Your task to perform on an android device: open app "Walmart Shopping & Grocery" (install if not already installed), go to login, and select forgot password Image 0: 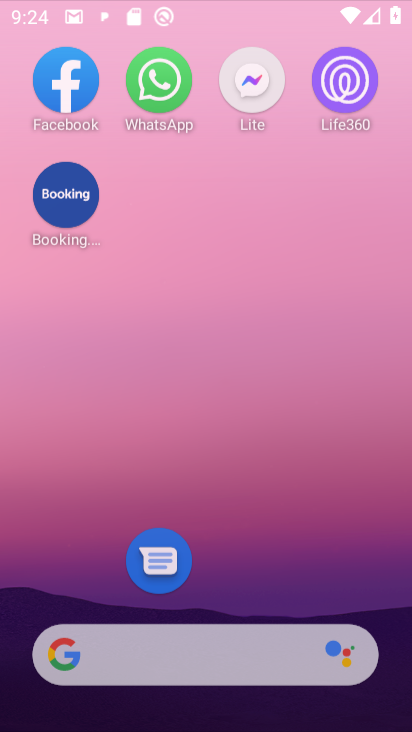
Step 0: drag from (129, 242) to (270, 96)
Your task to perform on an android device: open app "Walmart Shopping & Grocery" (install if not already installed), go to login, and select forgot password Image 1: 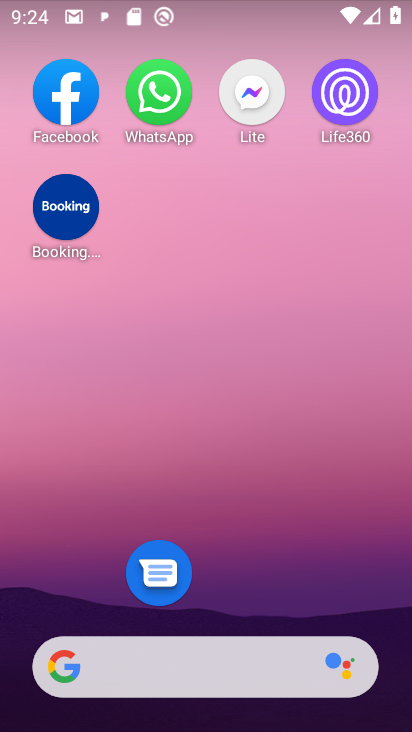
Step 1: drag from (217, 646) to (242, 178)
Your task to perform on an android device: open app "Walmart Shopping & Grocery" (install if not already installed), go to login, and select forgot password Image 2: 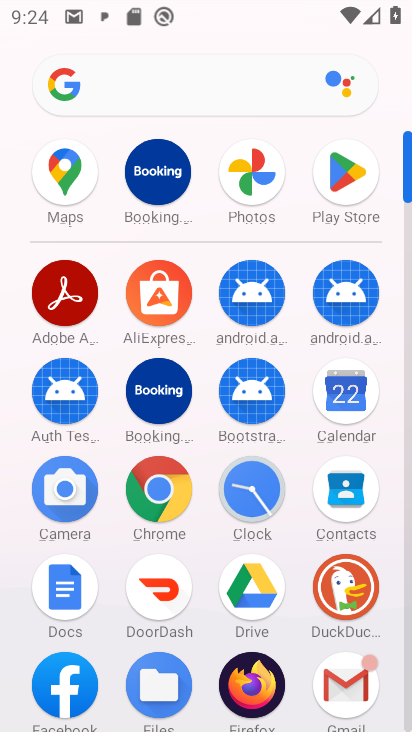
Step 2: click (347, 177)
Your task to perform on an android device: open app "Walmart Shopping & Grocery" (install if not already installed), go to login, and select forgot password Image 3: 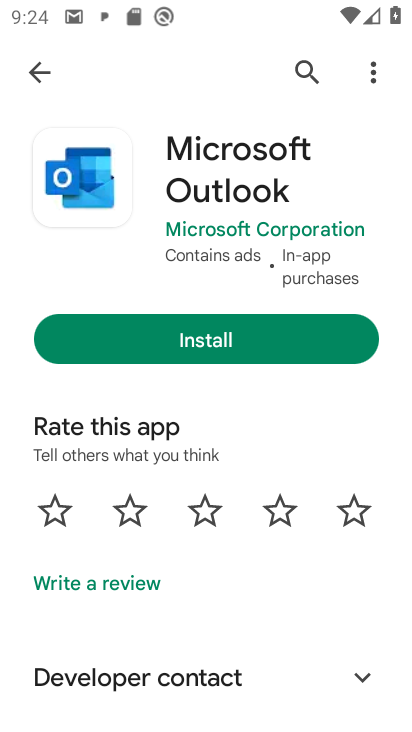
Step 3: click (46, 69)
Your task to perform on an android device: open app "Walmart Shopping & Grocery" (install if not already installed), go to login, and select forgot password Image 4: 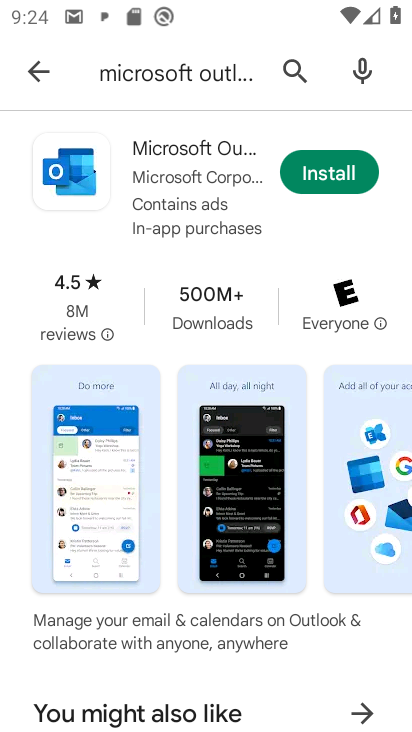
Step 4: click (208, 78)
Your task to perform on an android device: open app "Walmart Shopping & Grocery" (install if not already installed), go to login, and select forgot password Image 5: 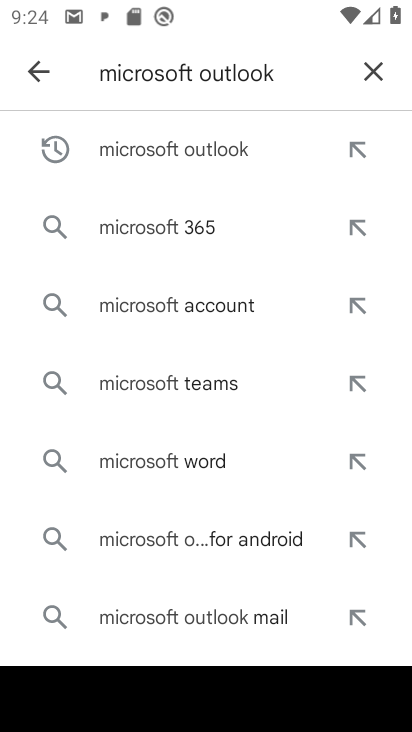
Step 5: click (370, 80)
Your task to perform on an android device: open app "Walmart Shopping & Grocery" (install if not already installed), go to login, and select forgot password Image 6: 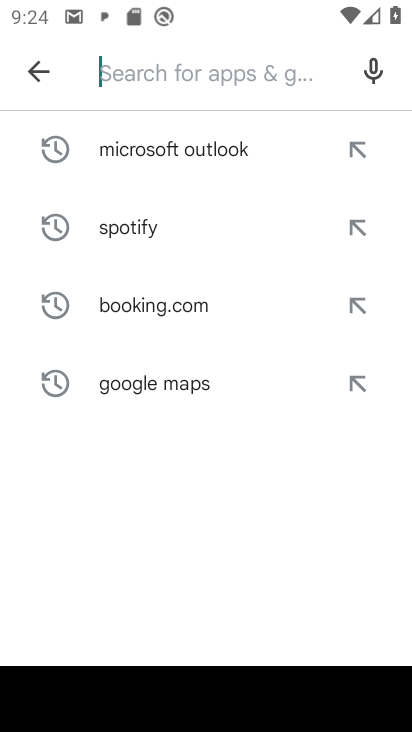
Step 6: type "walmart"
Your task to perform on an android device: open app "Walmart Shopping & Grocery" (install if not already installed), go to login, and select forgot password Image 7: 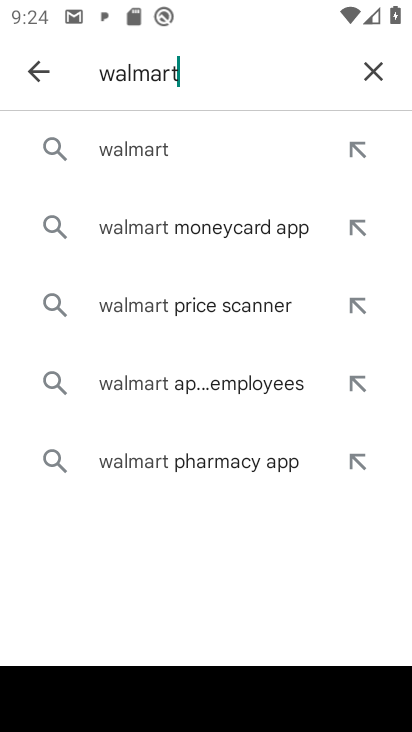
Step 7: click (150, 162)
Your task to perform on an android device: open app "Walmart Shopping & Grocery" (install if not already installed), go to login, and select forgot password Image 8: 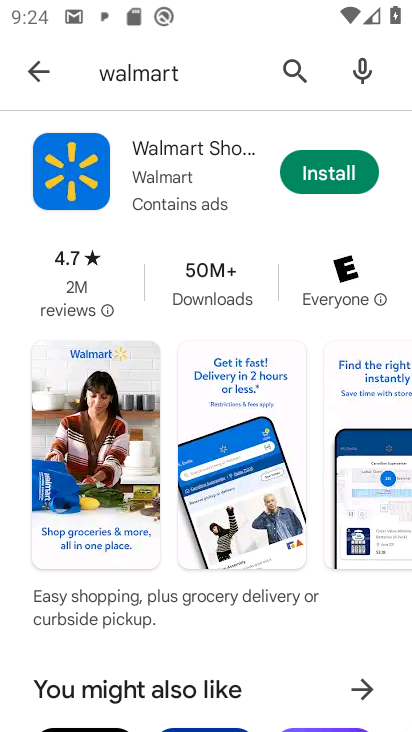
Step 8: click (335, 172)
Your task to perform on an android device: open app "Walmart Shopping & Grocery" (install if not already installed), go to login, and select forgot password Image 9: 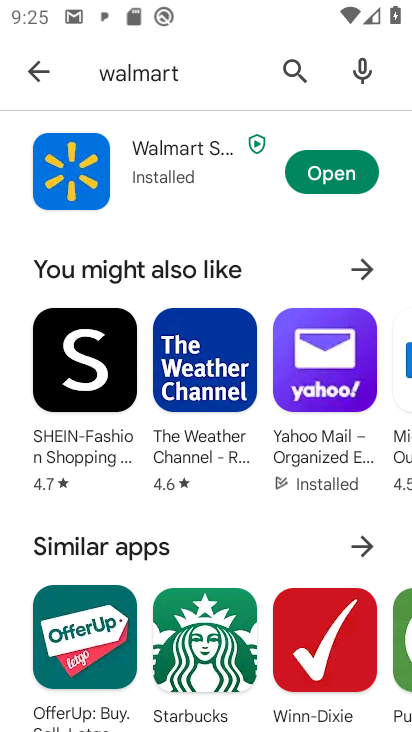
Step 9: click (328, 160)
Your task to perform on an android device: open app "Walmart Shopping & Grocery" (install if not already installed), go to login, and select forgot password Image 10: 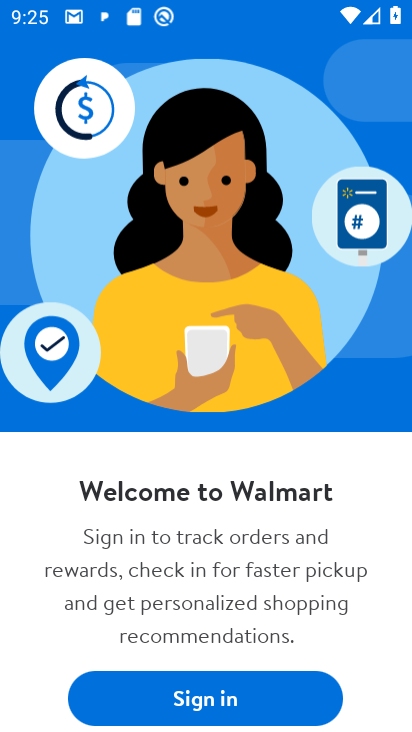
Step 10: click (230, 687)
Your task to perform on an android device: open app "Walmart Shopping & Grocery" (install if not already installed), go to login, and select forgot password Image 11: 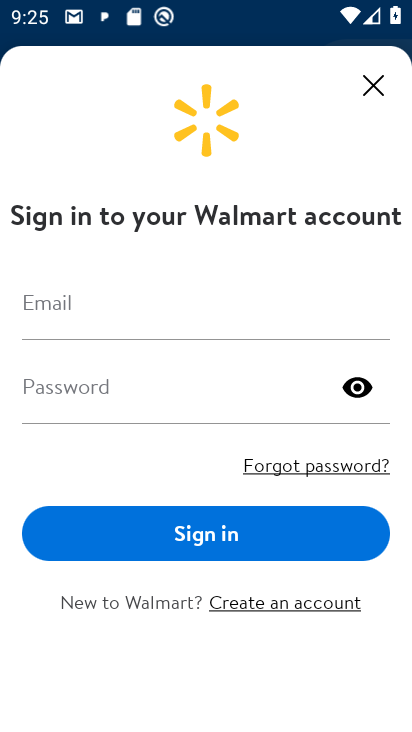
Step 11: click (323, 454)
Your task to perform on an android device: open app "Walmart Shopping & Grocery" (install if not already installed), go to login, and select forgot password Image 12: 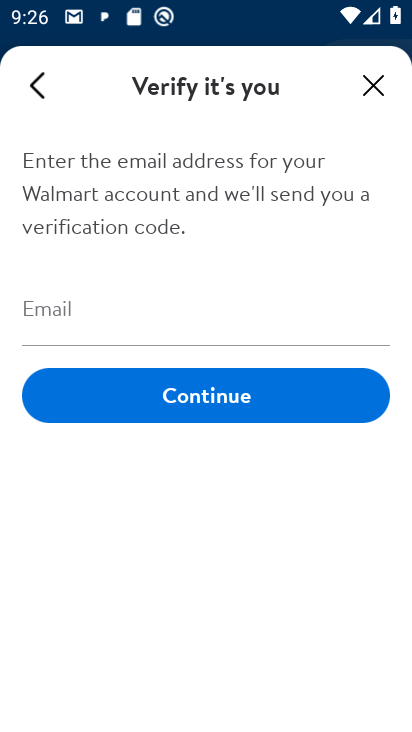
Step 12: task complete